Your task to perform on an android device: What's on my calendar tomorrow? Image 0: 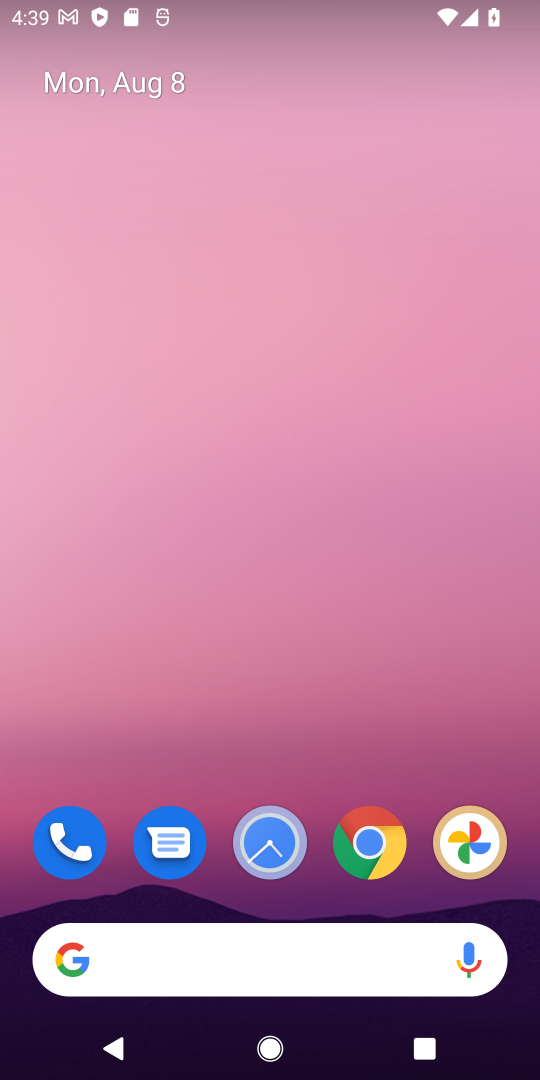
Step 0: drag from (364, 726) to (324, 507)
Your task to perform on an android device: What's on my calendar tomorrow? Image 1: 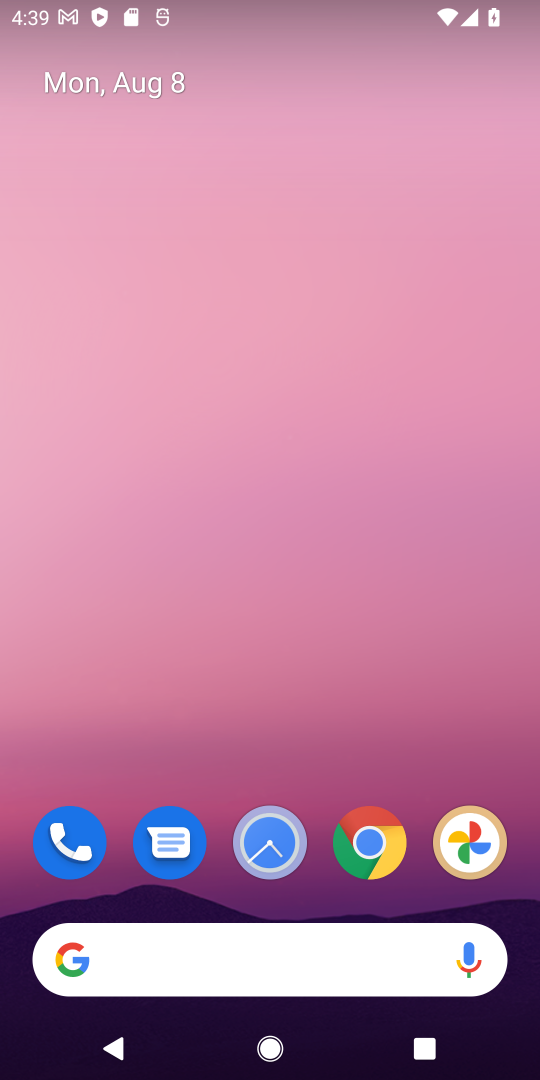
Step 1: drag from (381, 780) to (283, 31)
Your task to perform on an android device: What's on my calendar tomorrow? Image 2: 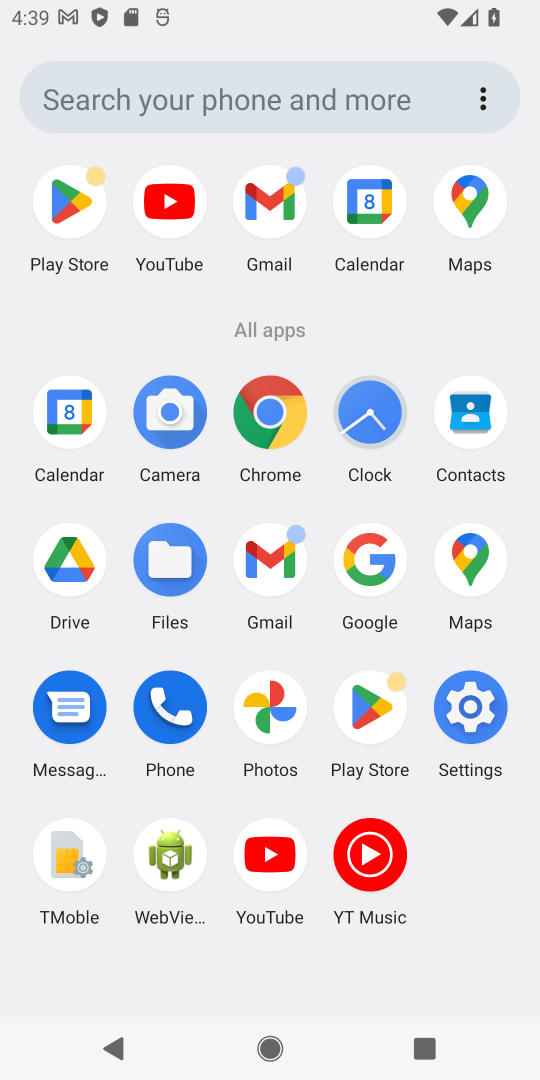
Step 2: click (80, 424)
Your task to perform on an android device: What's on my calendar tomorrow? Image 3: 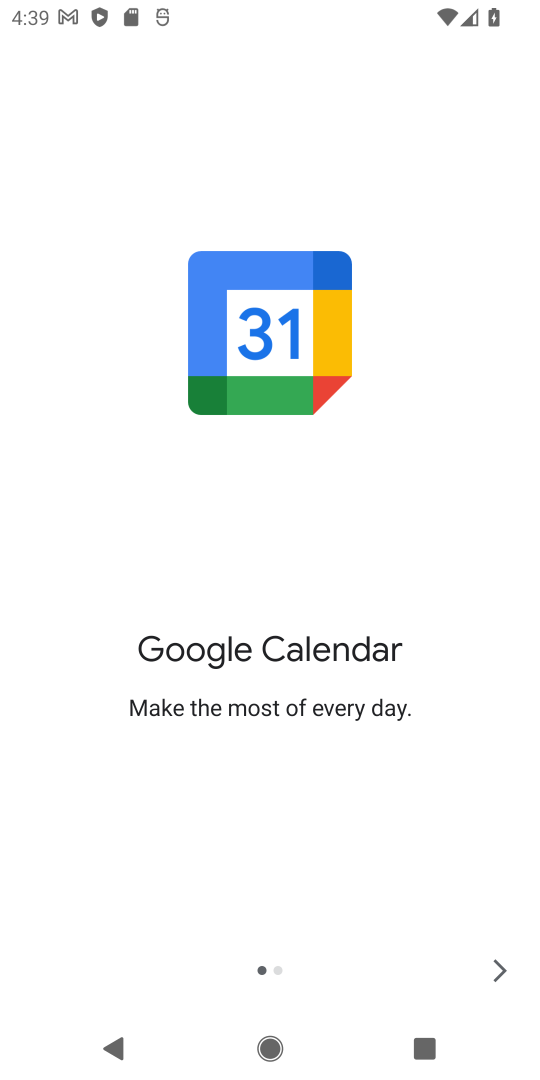
Step 3: click (507, 973)
Your task to perform on an android device: What's on my calendar tomorrow? Image 4: 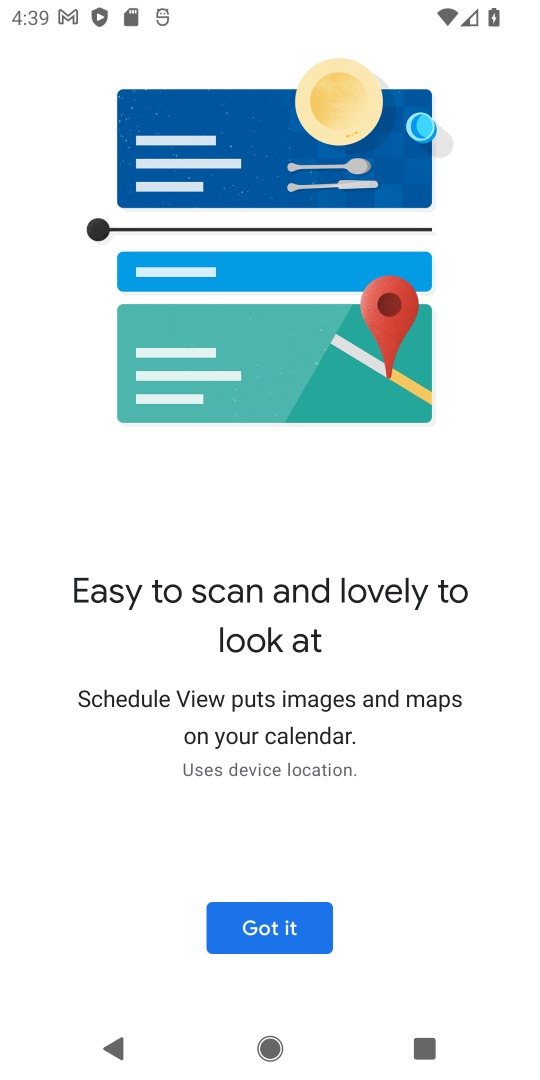
Step 4: click (291, 921)
Your task to perform on an android device: What's on my calendar tomorrow? Image 5: 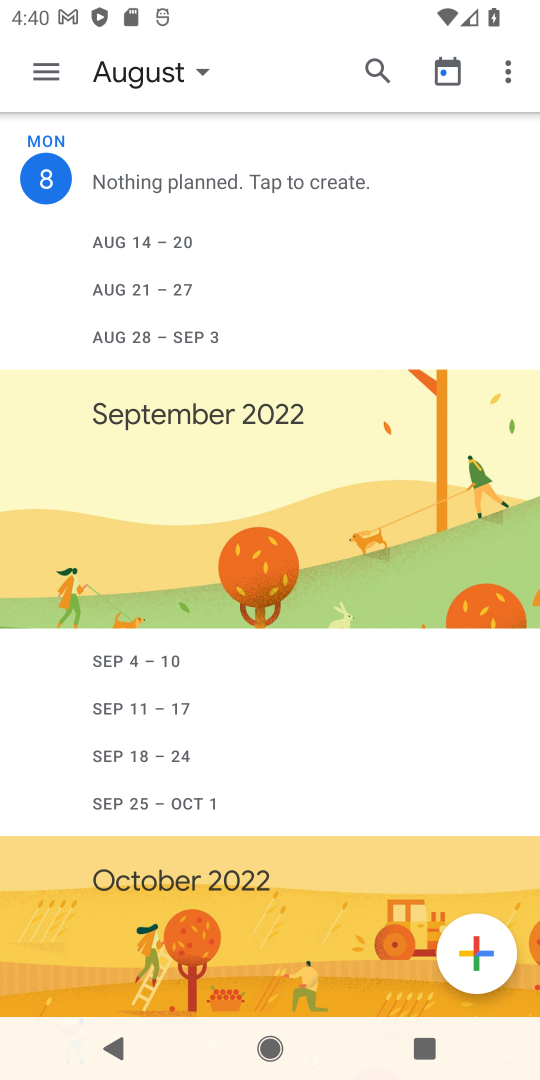
Step 5: click (43, 79)
Your task to perform on an android device: What's on my calendar tomorrow? Image 6: 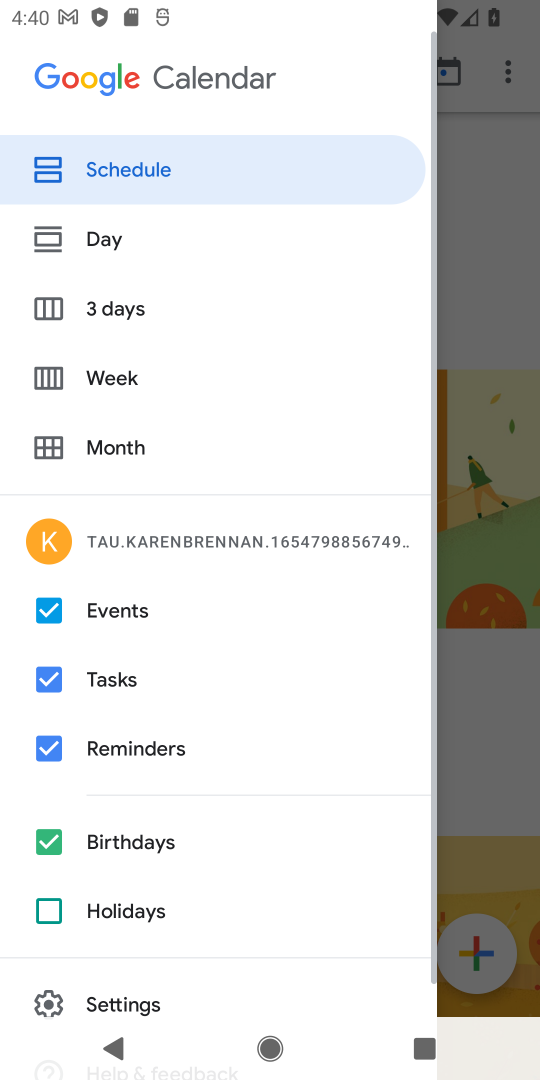
Step 6: click (130, 243)
Your task to perform on an android device: What's on my calendar tomorrow? Image 7: 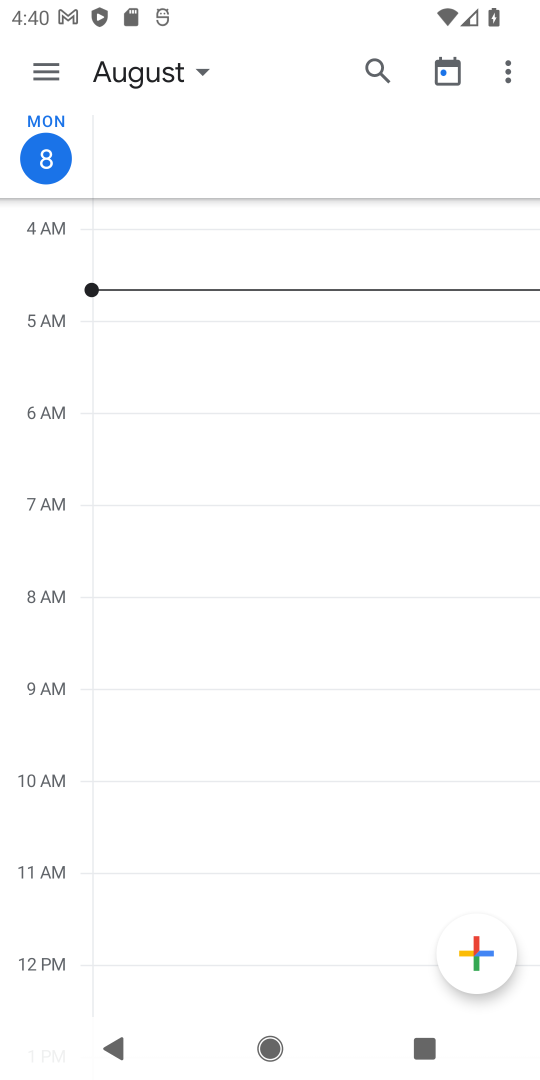
Step 7: click (168, 58)
Your task to perform on an android device: What's on my calendar tomorrow? Image 8: 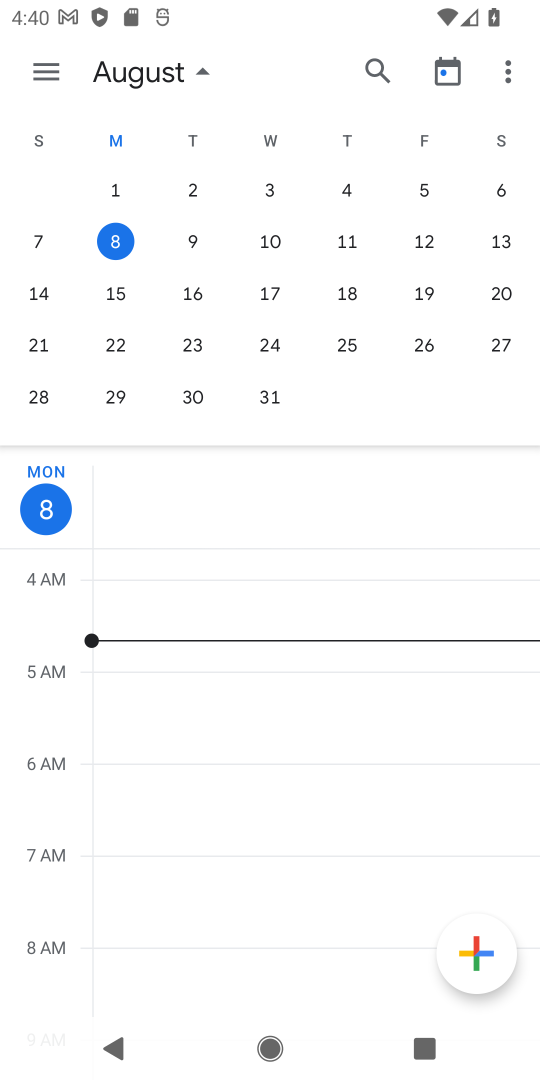
Step 8: click (187, 241)
Your task to perform on an android device: What's on my calendar tomorrow? Image 9: 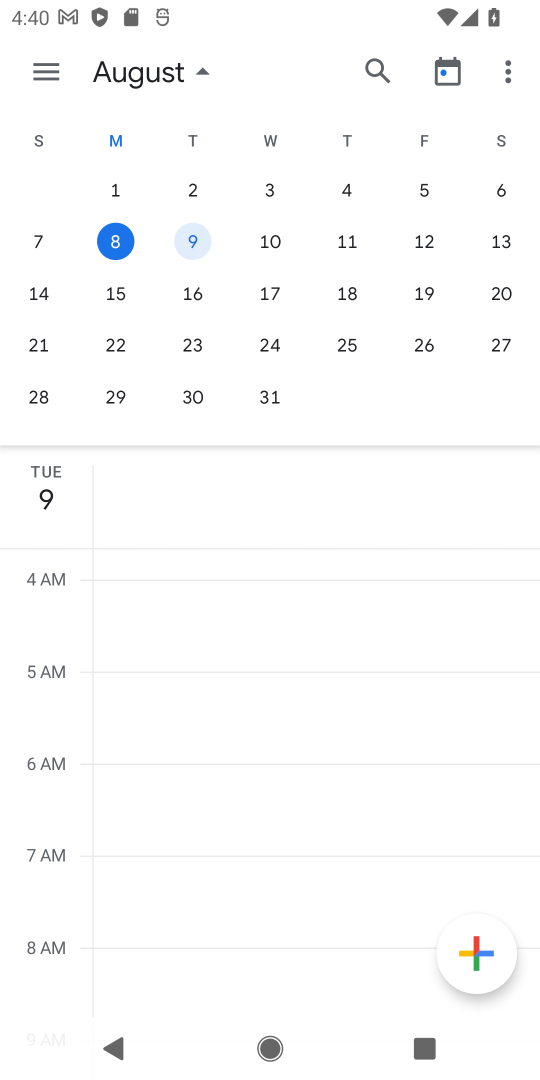
Step 9: task complete